Your task to perform on an android device: Open internet settings Image 0: 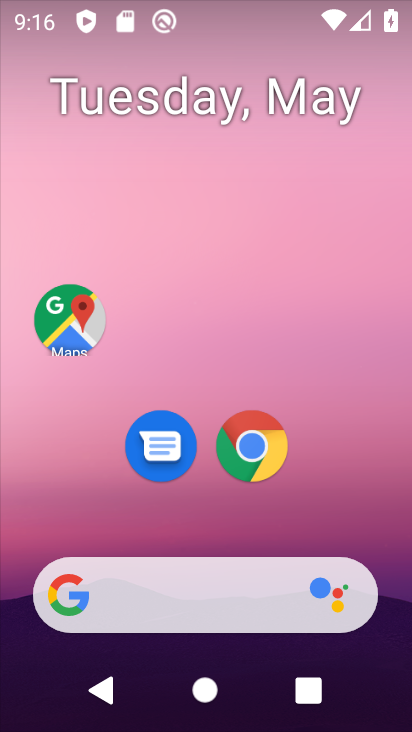
Step 0: drag from (156, 584) to (140, 66)
Your task to perform on an android device: Open internet settings Image 1: 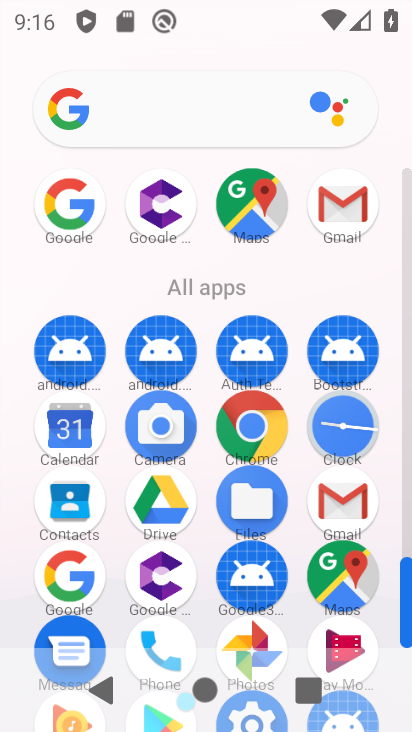
Step 1: drag from (202, 474) to (218, 33)
Your task to perform on an android device: Open internet settings Image 2: 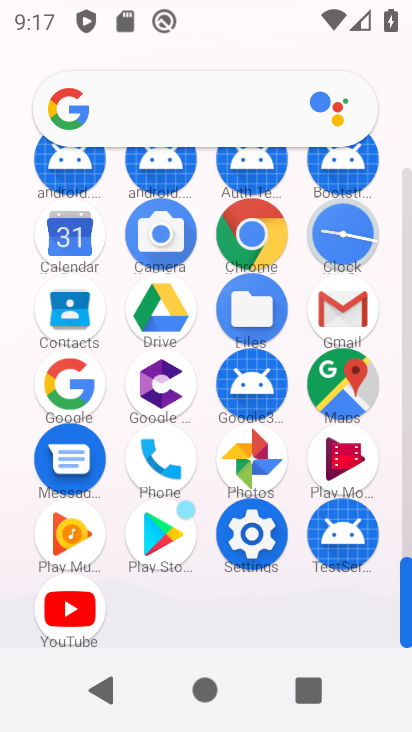
Step 2: click (262, 554)
Your task to perform on an android device: Open internet settings Image 3: 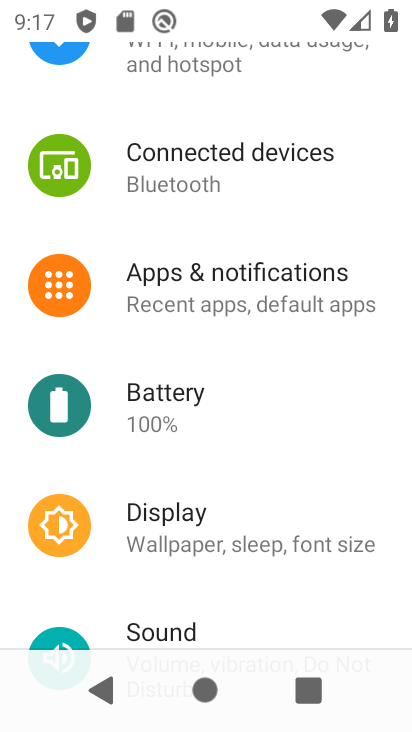
Step 3: drag from (192, 171) to (197, 496)
Your task to perform on an android device: Open internet settings Image 4: 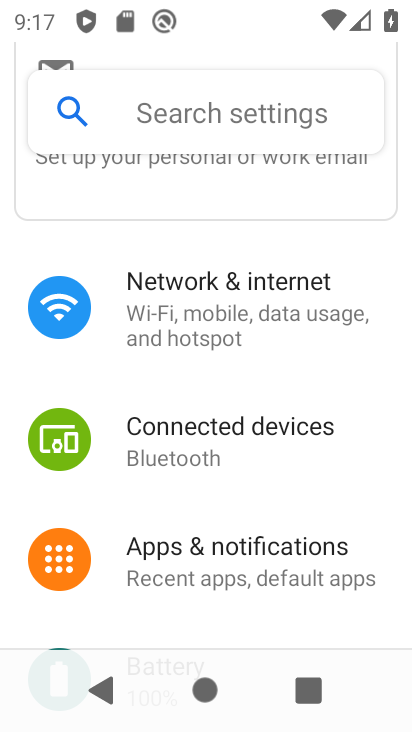
Step 4: click (209, 304)
Your task to perform on an android device: Open internet settings Image 5: 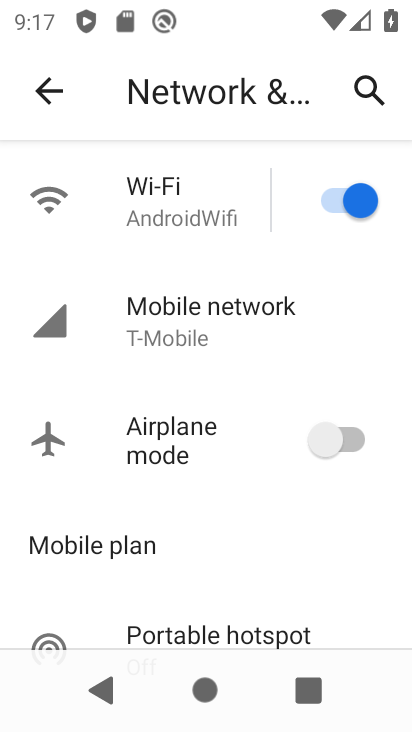
Step 5: task complete